Your task to perform on an android device: turn on showing notifications on the lock screen Image 0: 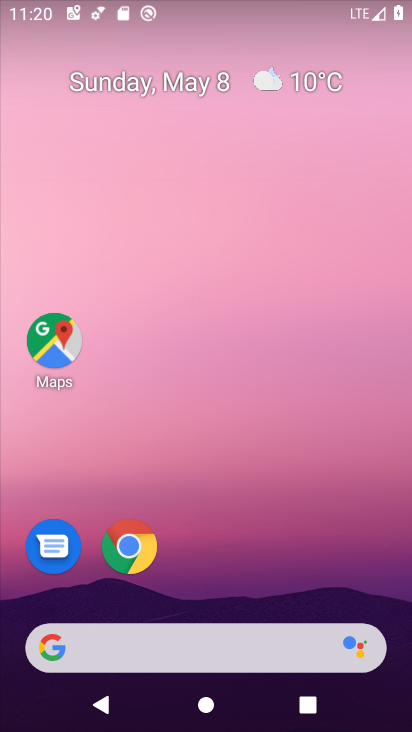
Step 0: drag from (392, 601) to (292, 114)
Your task to perform on an android device: turn on showing notifications on the lock screen Image 1: 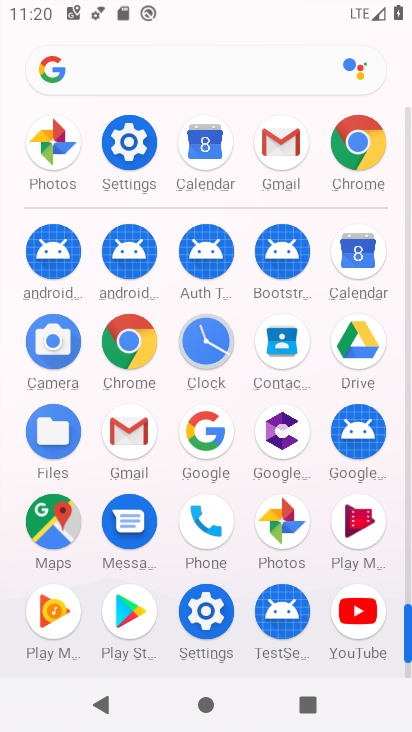
Step 1: click (204, 614)
Your task to perform on an android device: turn on showing notifications on the lock screen Image 2: 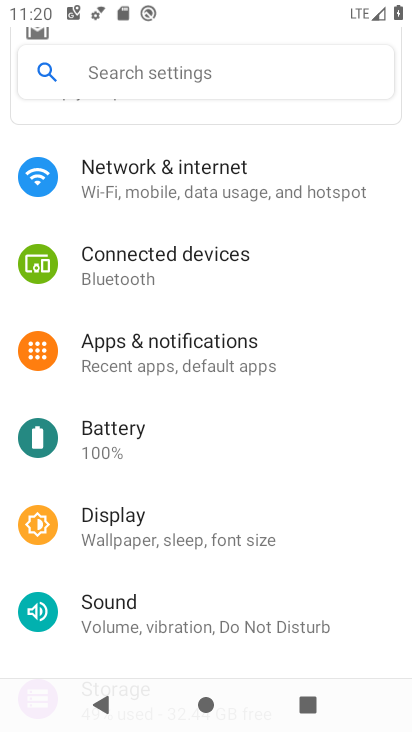
Step 2: click (150, 353)
Your task to perform on an android device: turn on showing notifications on the lock screen Image 3: 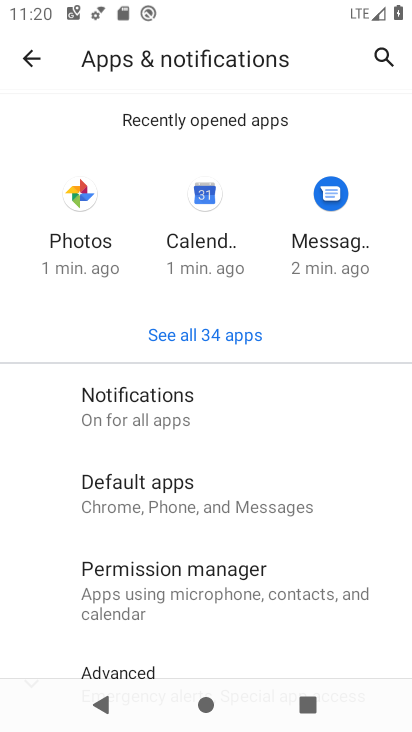
Step 3: click (157, 402)
Your task to perform on an android device: turn on showing notifications on the lock screen Image 4: 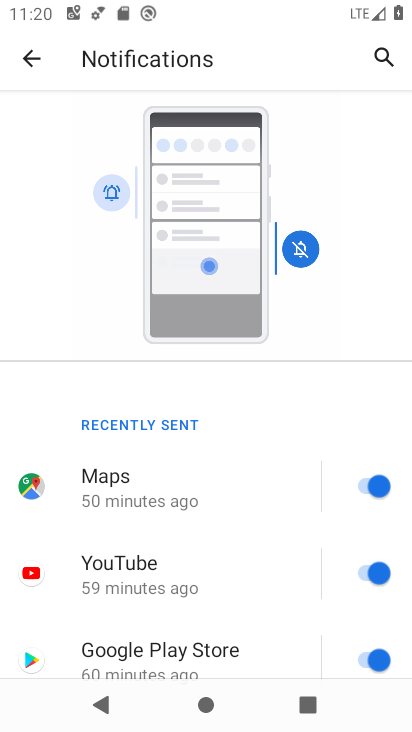
Step 4: drag from (290, 644) to (248, 173)
Your task to perform on an android device: turn on showing notifications on the lock screen Image 5: 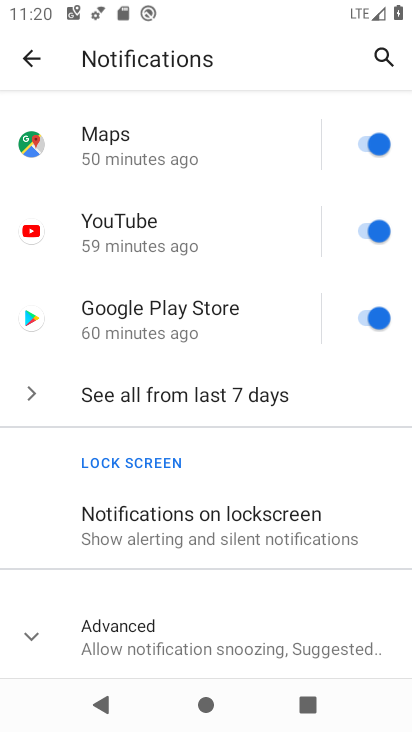
Step 5: click (146, 517)
Your task to perform on an android device: turn on showing notifications on the lock screen Image 6: 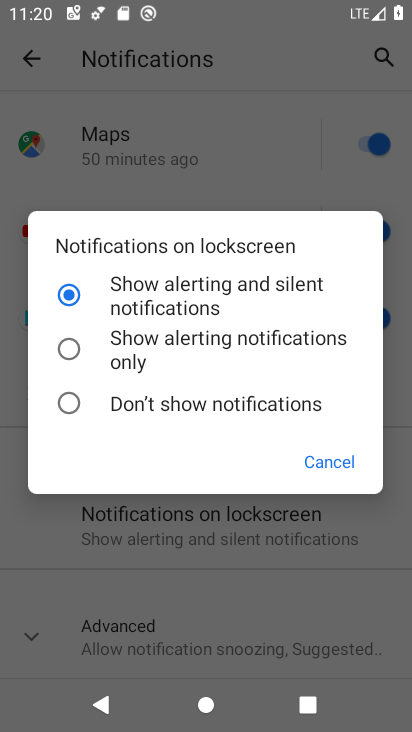
Step 6: task complete